Your task to perform on an android device: add a contact Image 0: 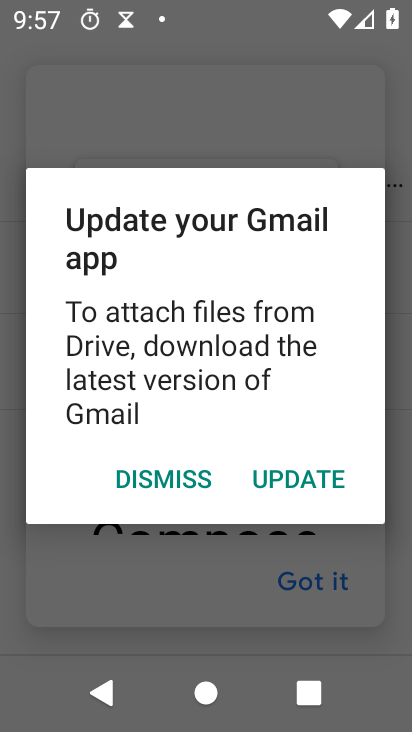
Step 0: press home button
Your task to perform on an android device: add a contact Image 1: 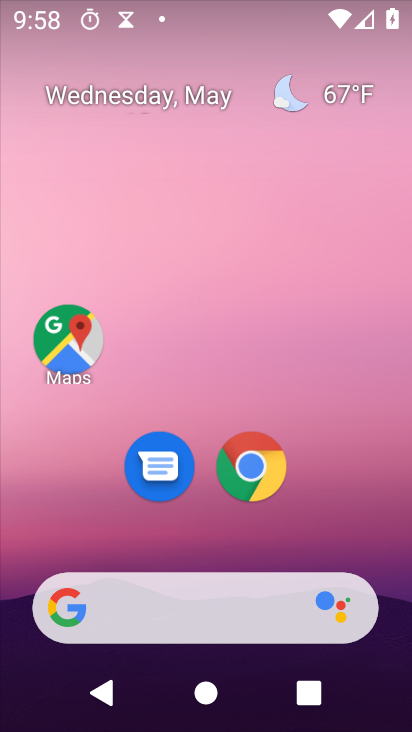
Step 1: drag from (257, 548) to (213, 135)
Your task to perform on an android device: add a contact Image 2: 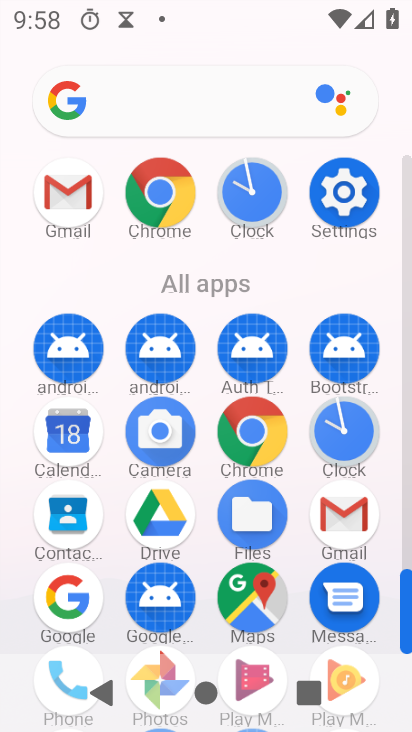
Step 2: click (59, 540)
Your task to perform on an android device: add a contact Image 3: 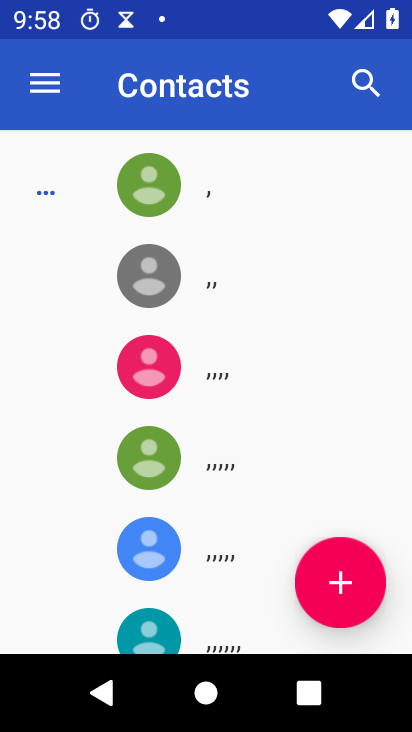
Step 3: click (318, 595)
Your task to perform on an android device: add a contact Image 4: 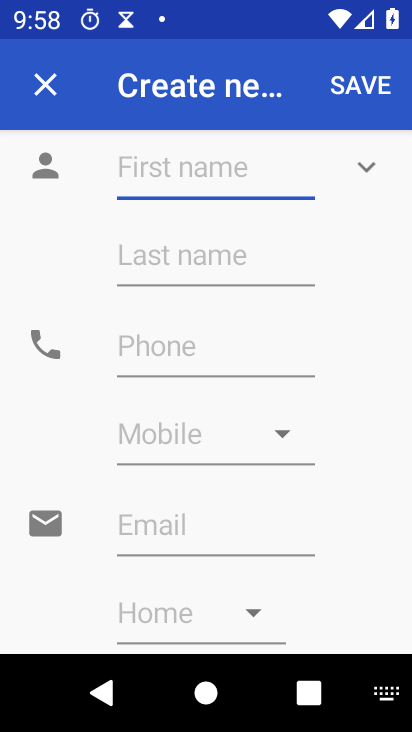
Step 4: click (194, 177)
Your task to perform on an android device: add a contact Image 5: 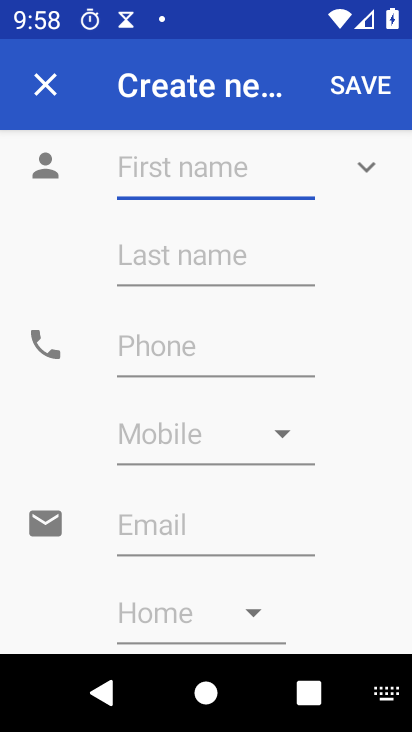
Step 5: type "Rancho"
Your task to perform on an android device: add a contact Image 6: 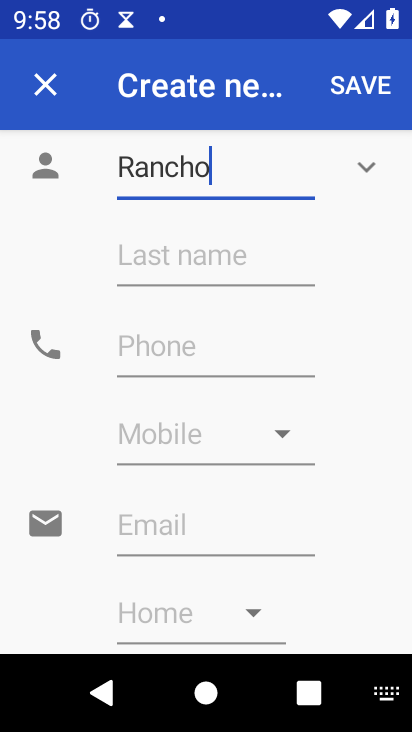
Step 6: click (206, 263)
Your task to perform on an android device: add a contact Image 7: 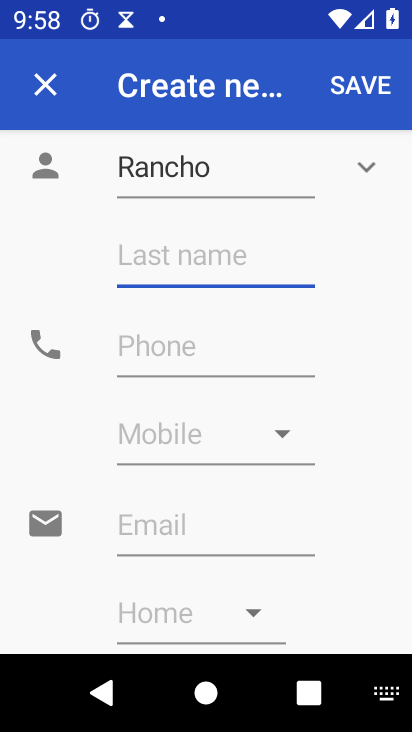
Step 7: type "Ranchordas"
Your task to perform on an android device: add a contact Image 8: 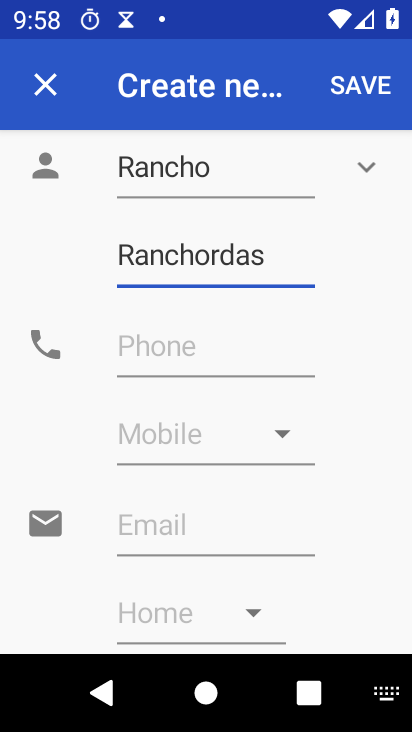
Step 8: click (195, 358)
Your task to perform on an android device: add a contact Image 9: 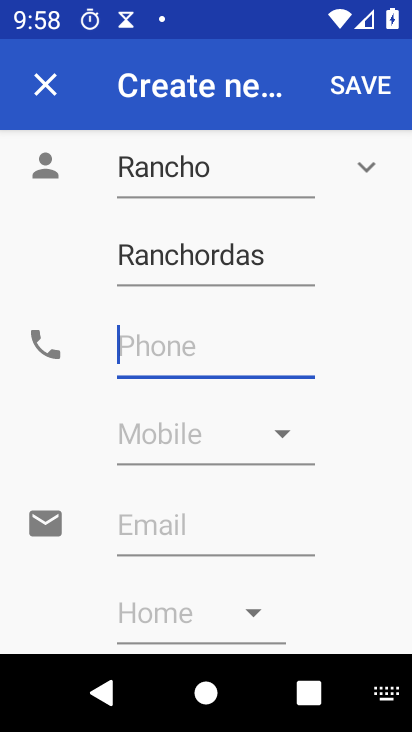
Step 9: type "7878878700"
Your task to perform on an android device: add a contact Image 10: 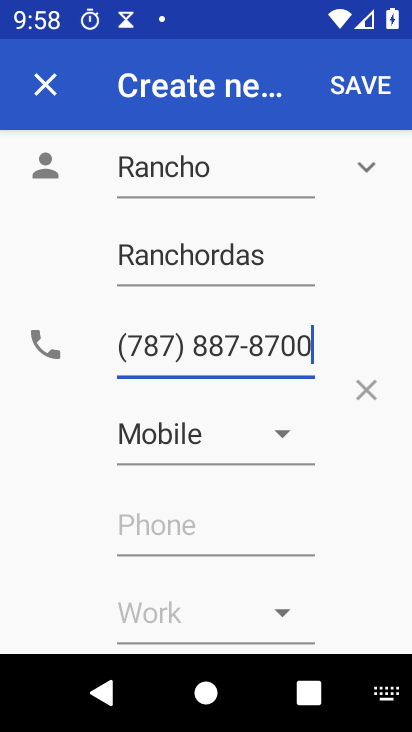
Step 10: click (346, 93)
Your task to perform on an android device: add a contact Image 11: 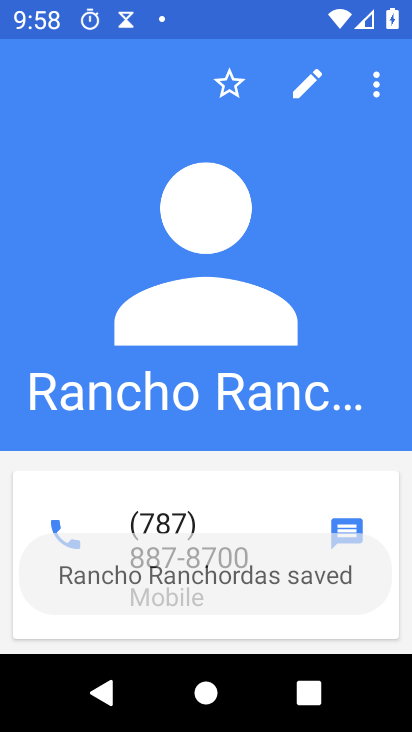
Step 11: task complete